Your task to perform on an android device: Check the weather Image 0: 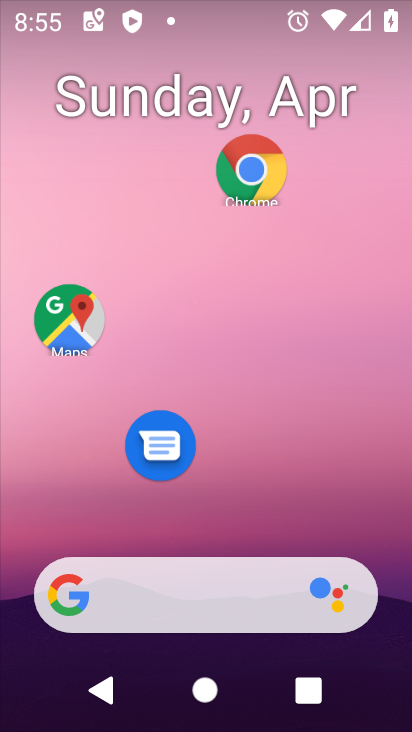
Step 0: drag from (252, 526) to (279, 24)
Your task to perform on an android device: Check the weather Image 1: 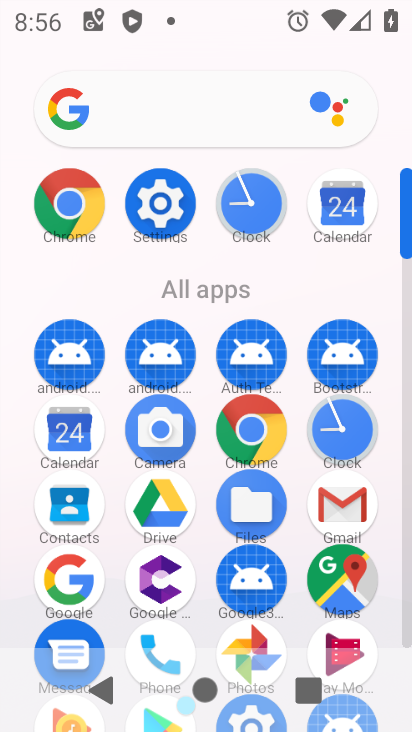
Step 1: click (71, 580)
Your task to perform on an android device: Check the weather Image 2: 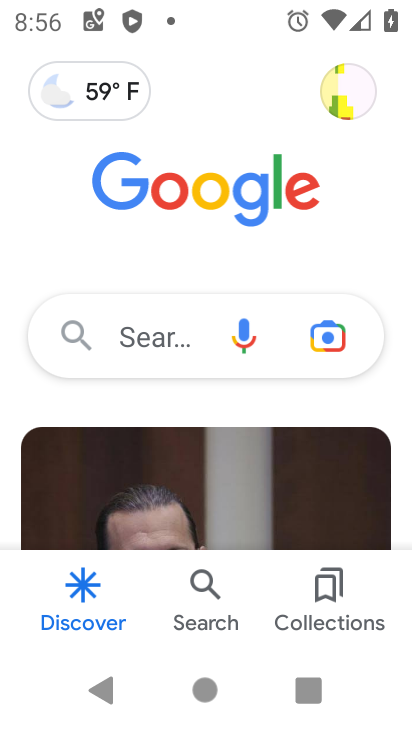
Step 2: click (153, 326)
Your task to perform on an android device: Check the weather Image 3: 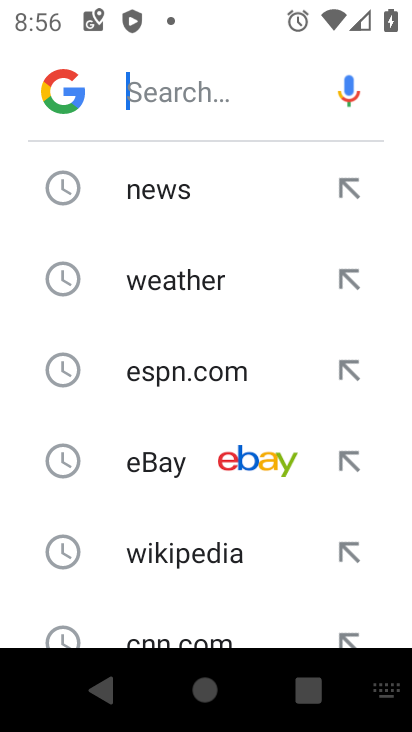
Step 3: click (190, 296)
Your task to perform on an android device: Check the weather Image 4: 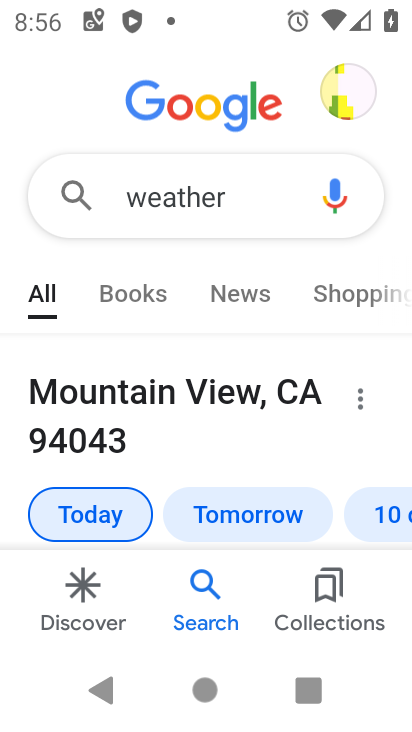
Step 4: task complete